Your task to perform on an android device: Search for Italian restaurants on Maps Image 0: 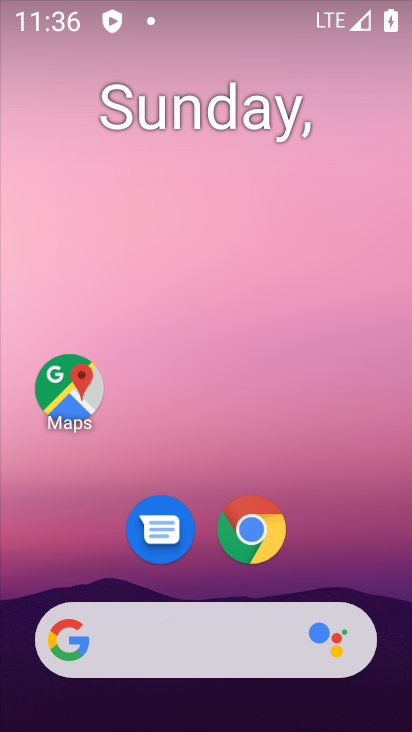
Step 0: click (71, 388)
Your task to perform on an android device: Search for Italian restaurants on Maps Image 1: 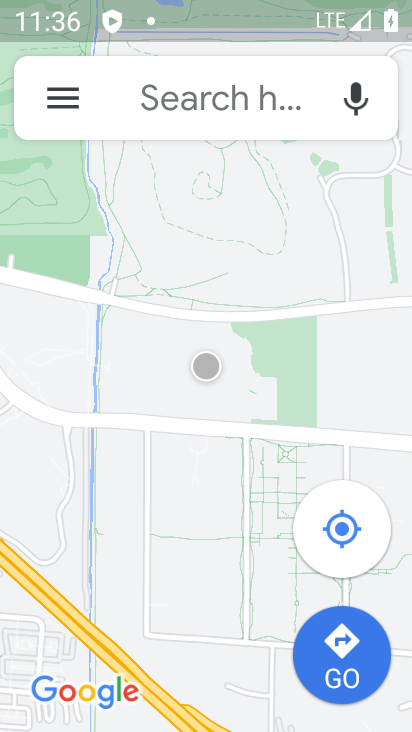
Step 1: click (139, 94)
Your task to perform on an android device: Search for Italian restaurants on Maps Image 2: 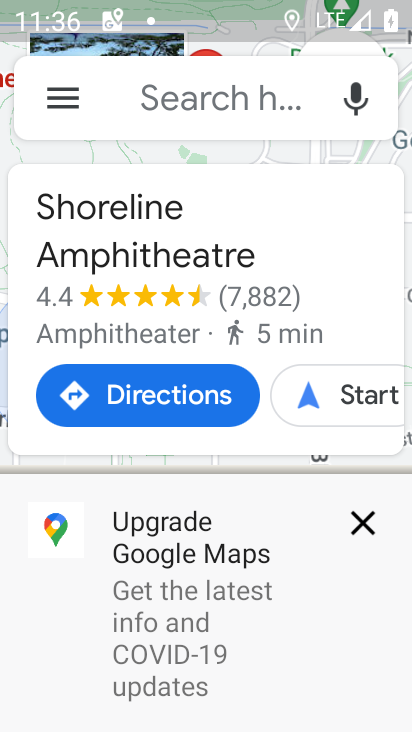
Step 2: click (235, 102)
Your task to perform on an android device: Search for Italian restaurants on Maps Image 3: 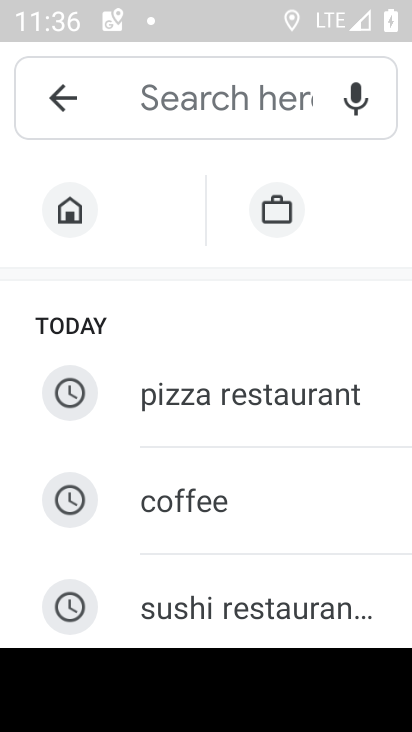
Step 3: type "Italian restaurants"
Your task to perform on an android device: Search for Italian restaurants on Maps Image 4: 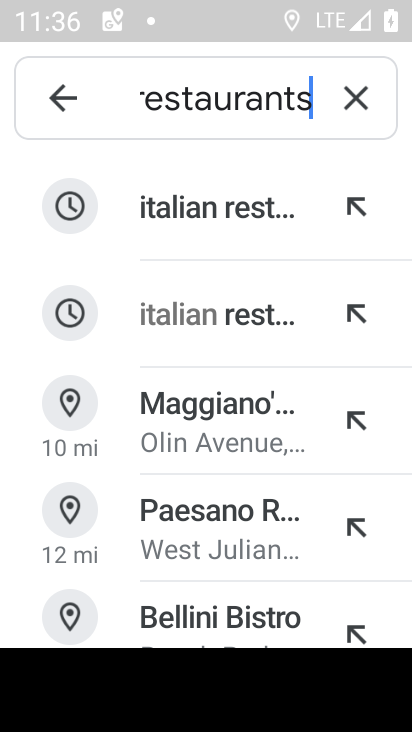
Step 4: click (175, 218)
Your task to perform on an android device: Search for Italian restaurants on Maps Image 5: 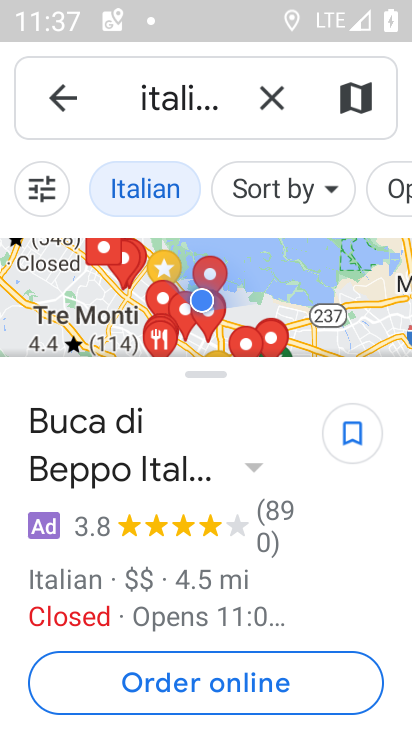
Step 5: task complete